Your task to perform on an android device: change timer sound Image 0: 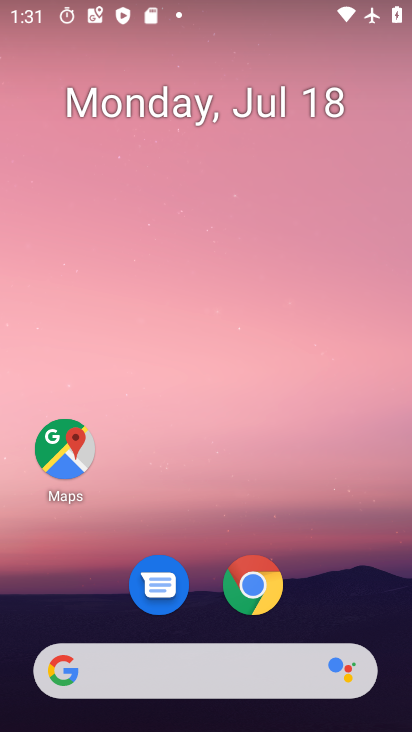
Step 0: drag from (167, 676) to (263, 177)
Your task to perform on an android device: change timer sound Image 1: 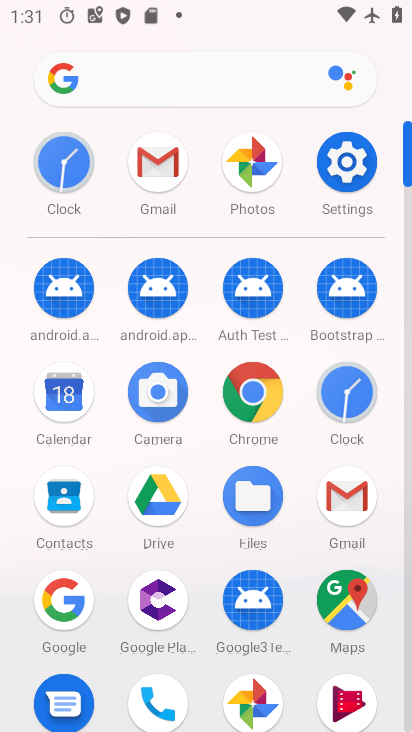
Step 1: click (343, 389)
Your task to perform on an android device: change timer sound Image 2: 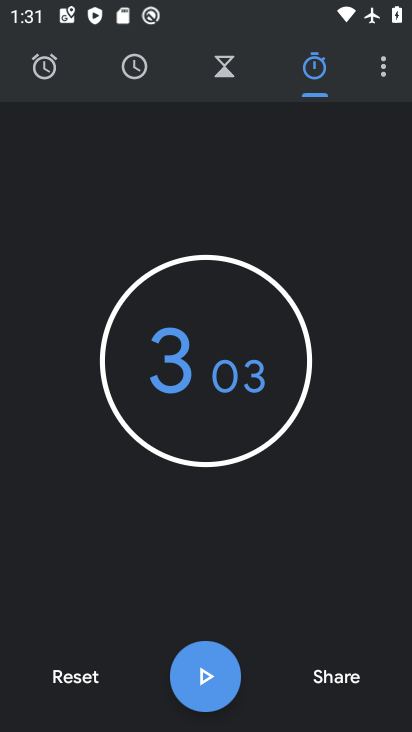
Step 2: click (384, 61)
Your task to perform on an android device: change timer sound Image 3: 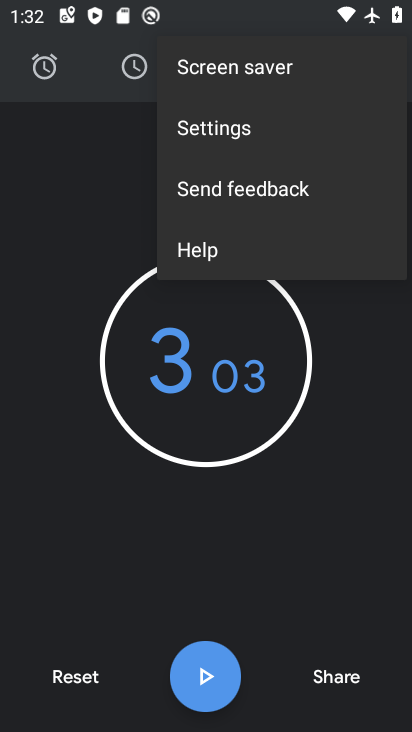
Step 3: click (245, 124)
Your task to perform on an android device: change timer sound Image 4: 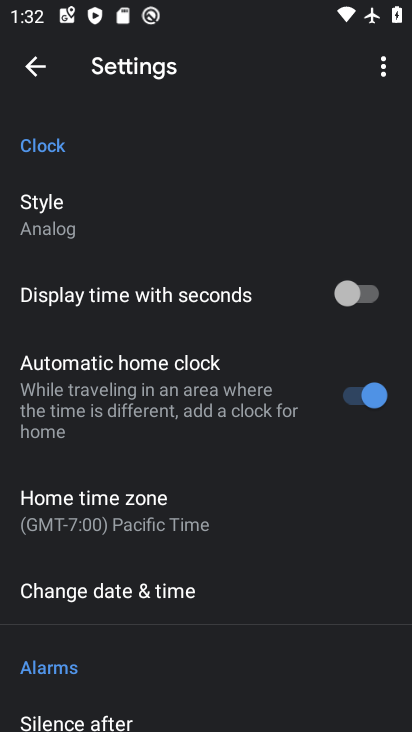
Step 4: drag from (228, 602) to (403, 149)
Your task to perform on an android device: change timer sound Image 5: 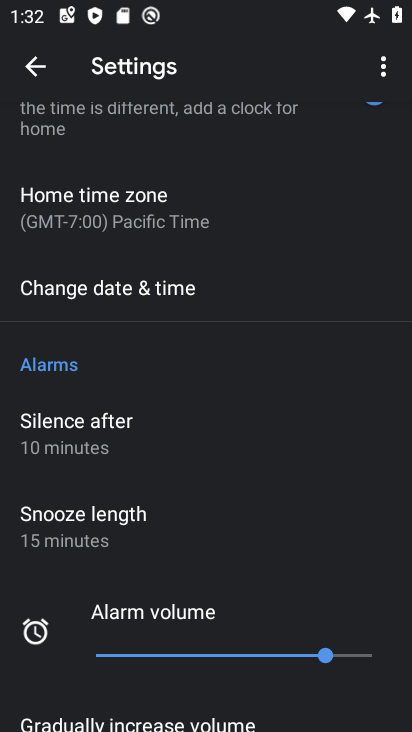
Step 5: drag from (194, 523) to (353, 96)
Your task to perform on an android device: change timer sound Image 6: 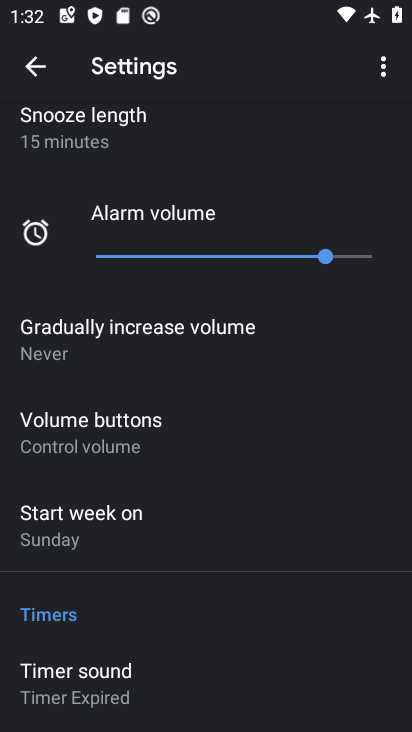
Step 6: click (88, 681)
Your task to perform on an android device: change timer sound Image 7: 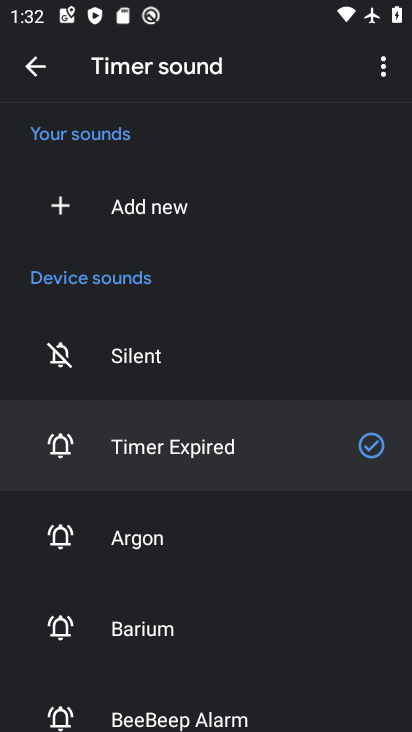
Step 7: click (128, 633)
Your task to perform on an android device: change timer sound Image 8: 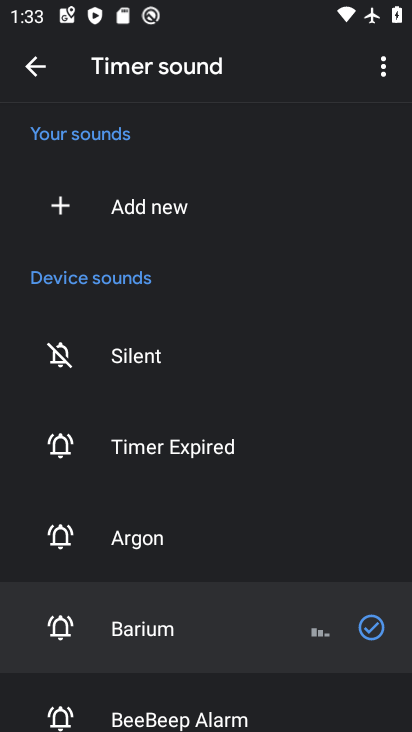
Step 8: task complete